Your task to perform on an android device: Set the phone to "Do not disturb". Image 0: 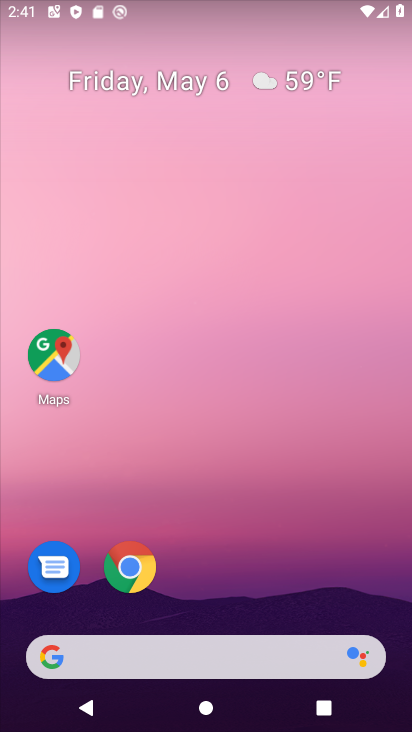
Step 0: drag from (183, 572) to (290, 3)
Your task to perform on an android device: Set the phone to "Do not disturb". Image 1: 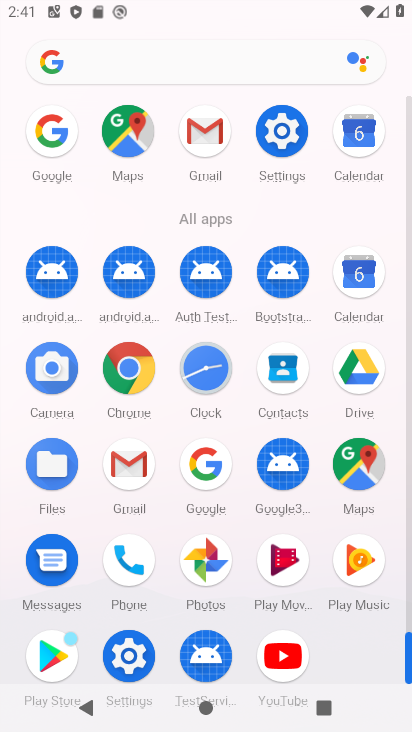
Step 1: click (138, 651)
Your task to perform on an android device: Set the phone to "Do not disturb". Image 2: 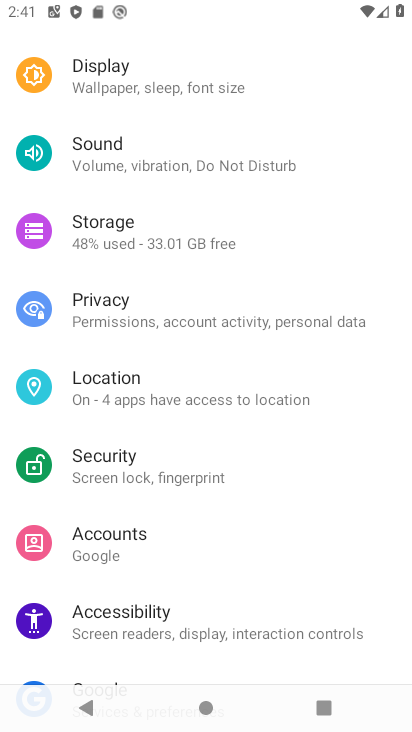
Step 2: drag from (229, 235) to (190, 535)
Your task to perform on an android device: Set the phone to "Do not disturb". Image 3: 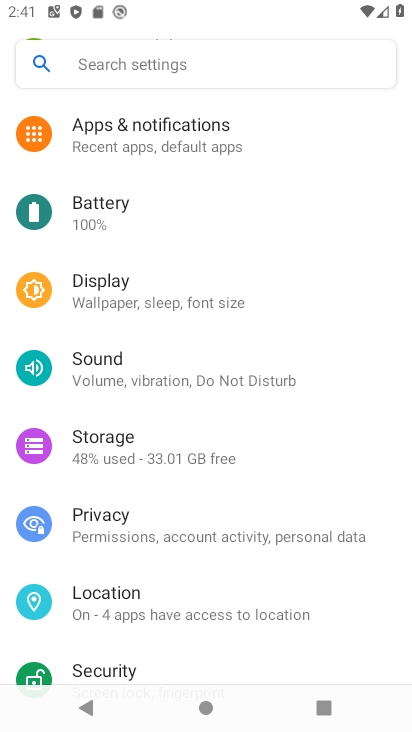
Step 3: click (227, 138)
Your task to perform on an android device: Set the phone to "Do not disturb". Image 4: 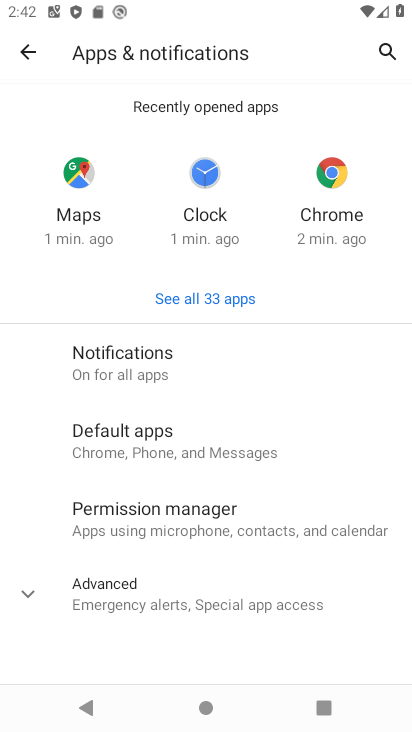
Step 4: drag from (177, 587) to (233, 392)
Your task to perform on an android device: Set the phone to "Do not disturb". Image 5: 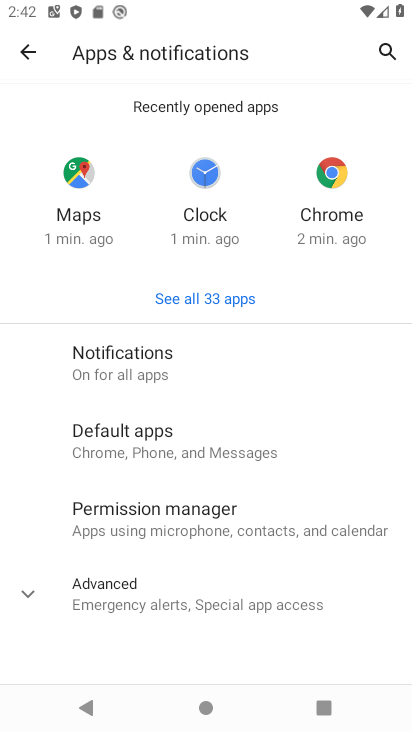
Step 5: click (178, 374)
Your task to perform on an android device: Set the phone to "Do not disturb". Image 6: 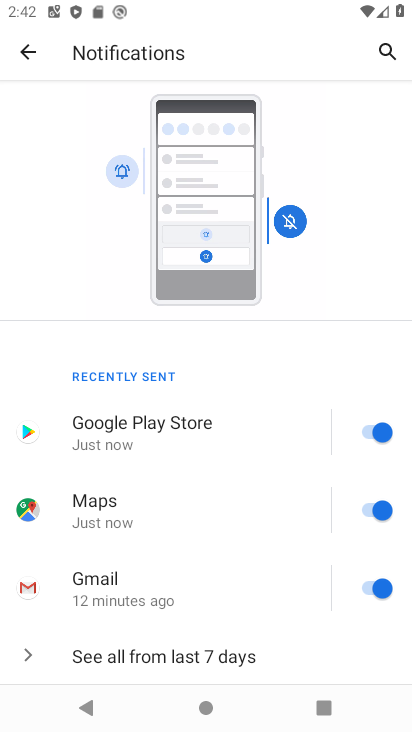
Step 6: drag from (209, 625) to (304, 93)
Your task to perform on an android device: Set the phone to "Do not disturb". Image 7: 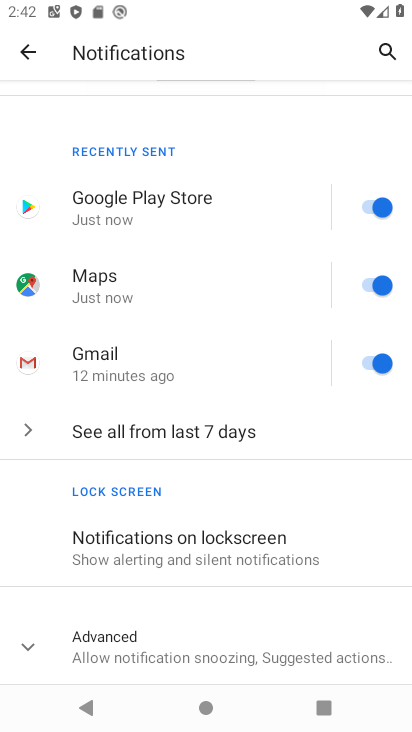
Step 7: click (174, 661)
Your task to perform on an android device: Set the phone to "Do not disturb". Image 8: 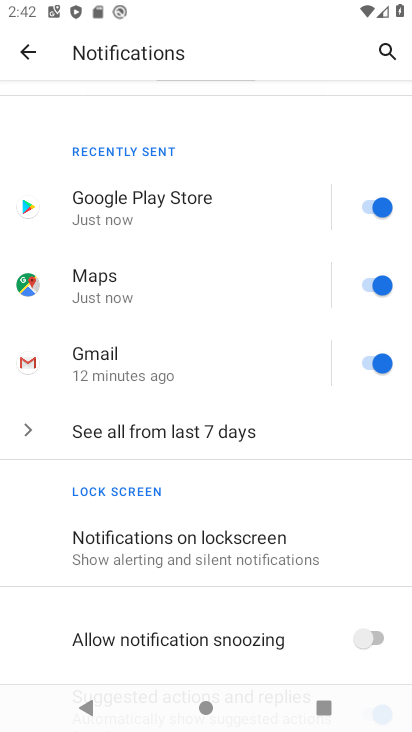
Step 8: drag from (140, 657) to (245, 194)
Your task to perform on an android device: Set the phone to "Do not disturb". Image 9: 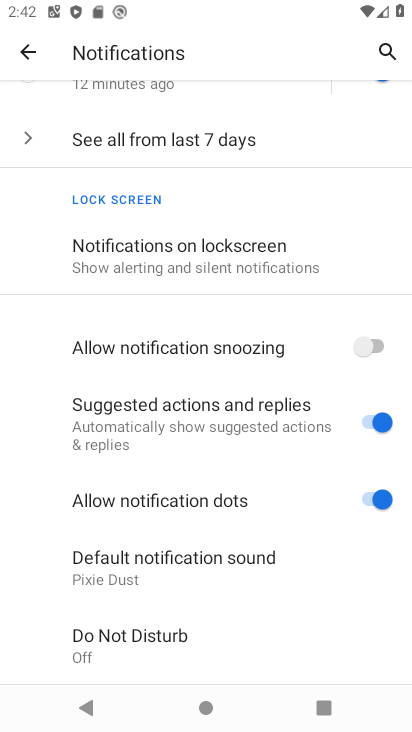
Step 9: click (178, 652)
Your task to perform on an android device: Set the phone to "Do not disturb". Image 10: 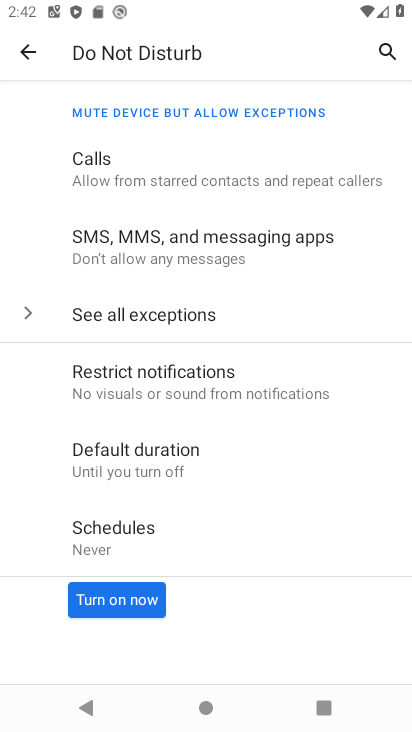
Step 10: click (106, 617)
Your task to perform on an android device: Set the phone to "Do not disturb". Image 11: 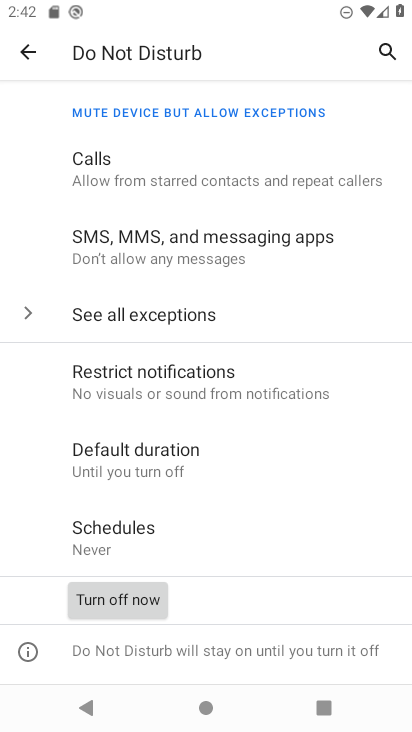
Step 11: task complete